Your task to perform on an android device: change text size in settings app Image 0: 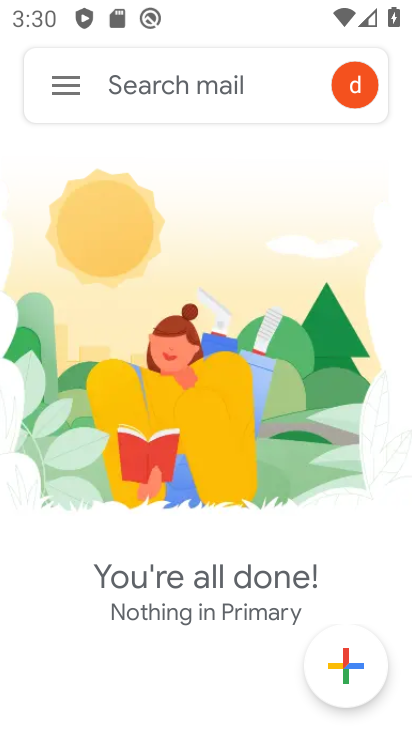
Step 0: click (251, 585)
Your task to perform on an android device: change text size in settings app Image 1: 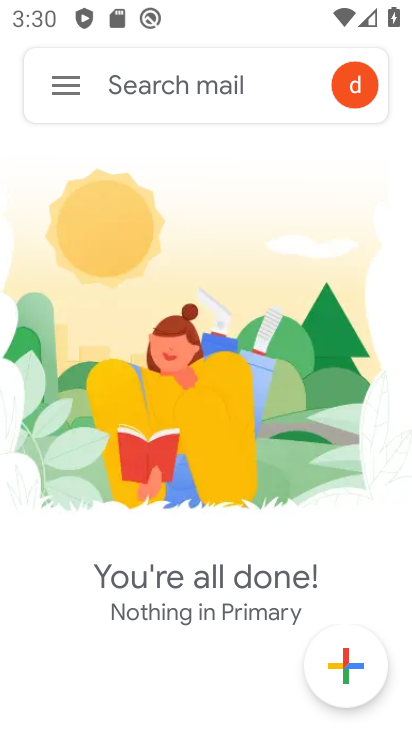
Step 1: press home button
Your task to perform on an android device: change text size in settings app Image 2: 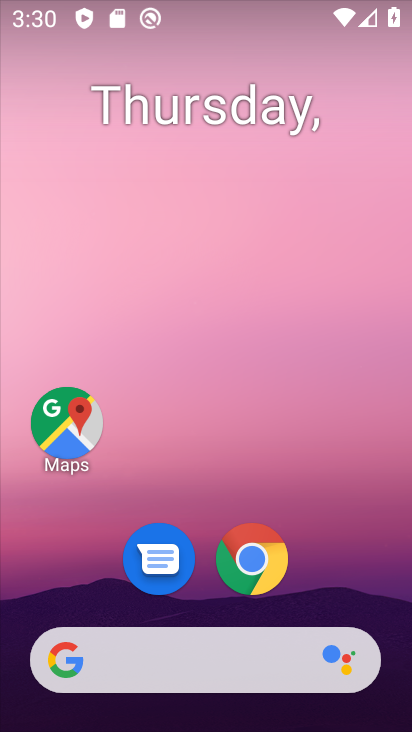
Step 2: drag from (345, 549) to (326, 188)
Your task to perform on an android device: change text size in settings app Image 3: 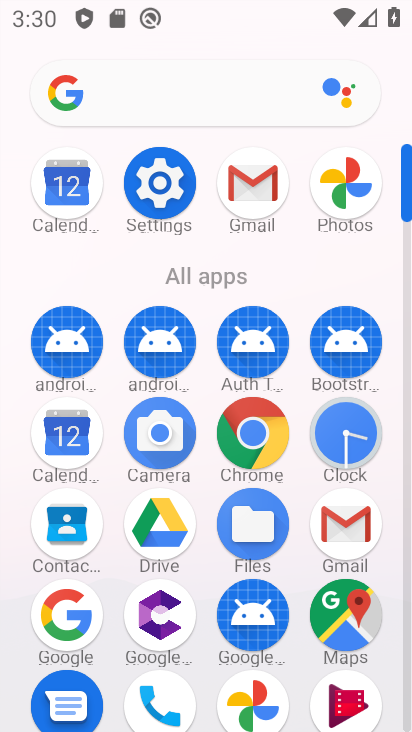
Step 3: click (164, 191)
Your task to perform on an android device: change text size in settings app Image 4: 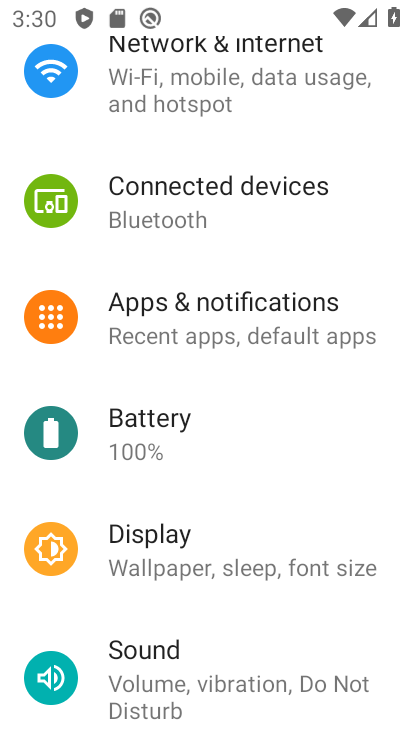
Step 4: click (289, 567)
Your task to perform on an android device: change text size in settings app Image 5: 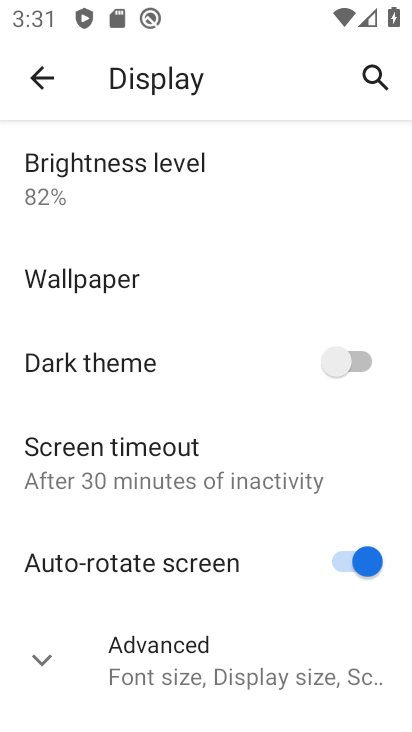
Step 5: click (40, 659)
Your task to perform on an android device: change text size in settings app Image 6: 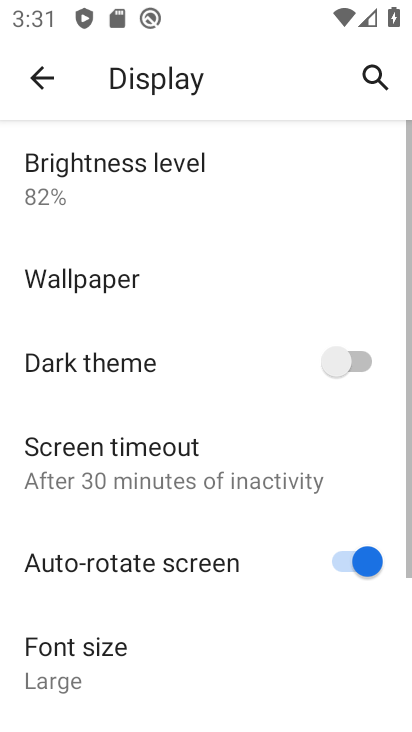
Step 6: drag from (137, 675) to (146, 329)
Your task to perform on an android device: change text size in settings app Image 7: 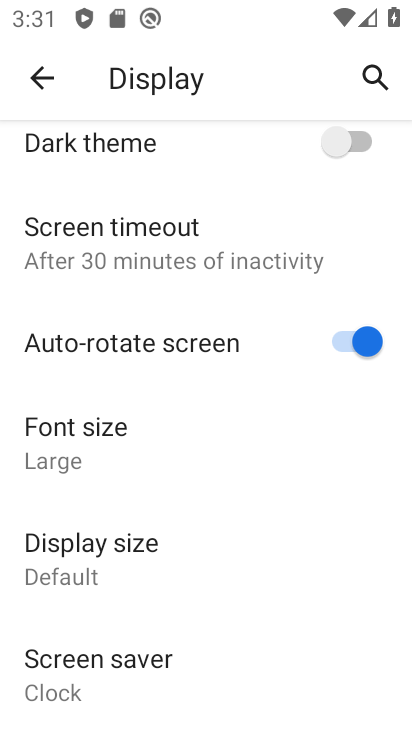
Step 7: click (108, 421)
Your task to perform on an android device: change text size in settings app Image 8: 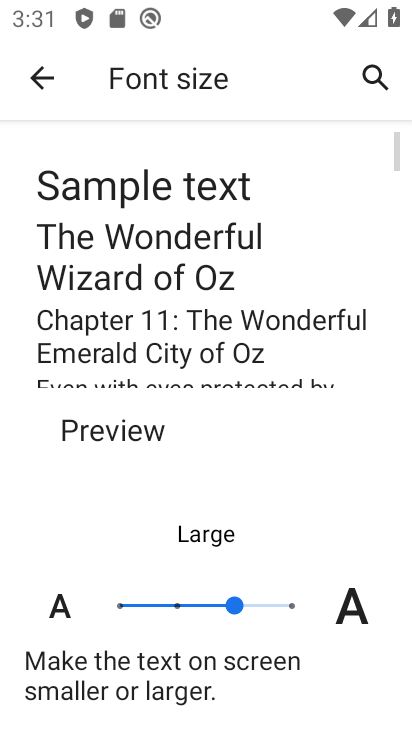
Step 8: click (179, 605)
Your task to perform on an android device: change text size in settings app Image 9: 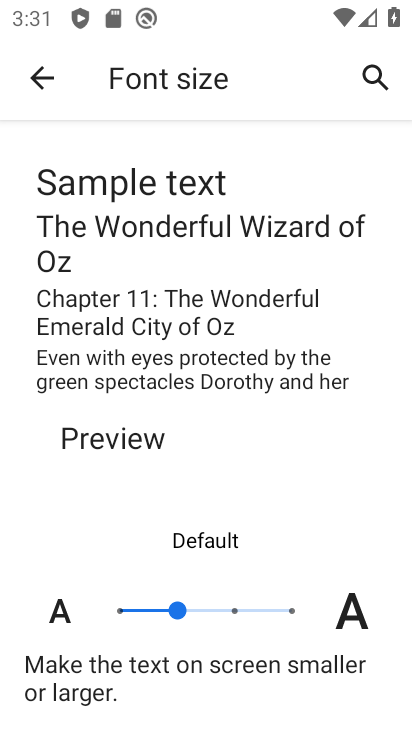
Step 9: task complete